Your task to perform on an android device: Open Google Chrome and click the shortcut for Amazon.com Image 0: 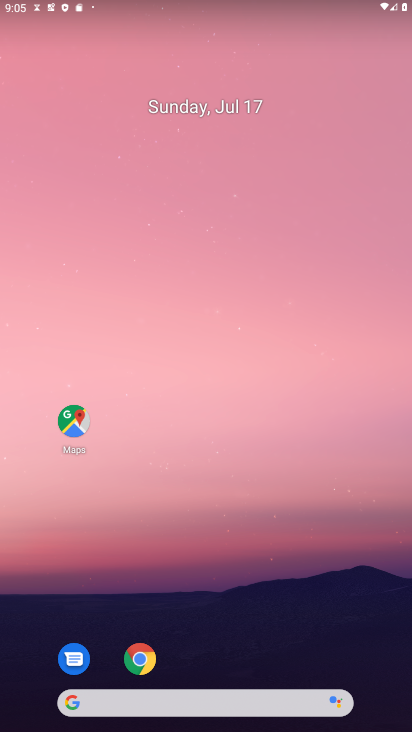
Step 0: click (150, 655)
Your task to perform on an android device: Open Google Chrome and click the shortcut for Amazon.com Image 1: 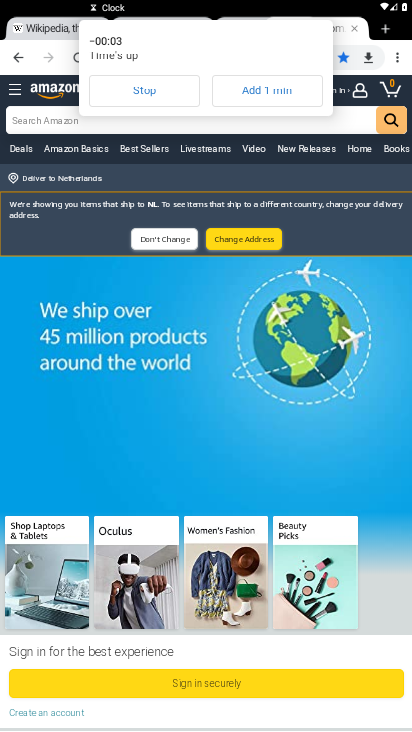
Step 1: click (192, 85)
Your task to perform on an android device: Open Google Chrome and click the shortcut for Amazon.com Image 2: 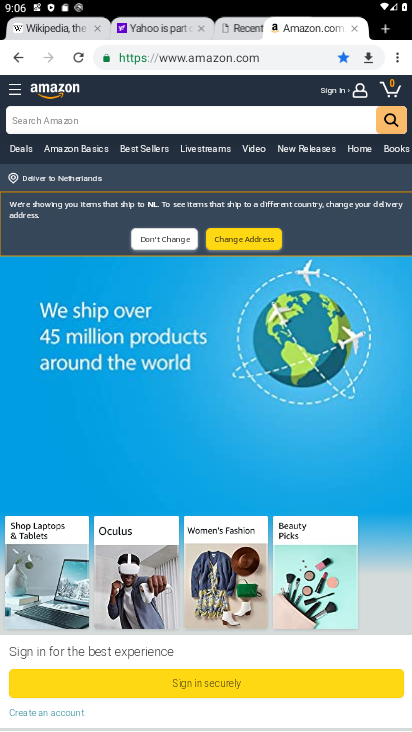
Step 2: task complete